Your task to perform on an android device: check google app version Image 0: 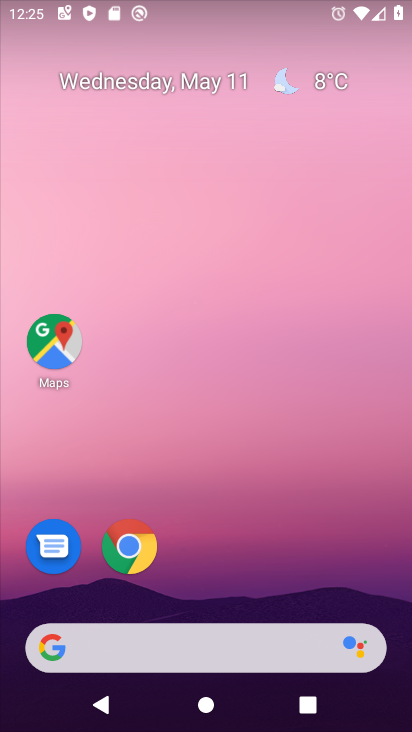
Step 0: drag from (220, 646) to (361, 140)
Your task to perform on an android device: check google app version Image 1: 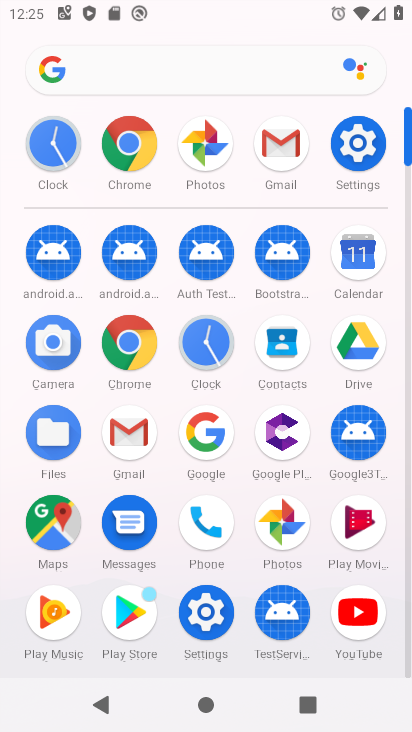
Step 1: click (216, 435)
Your task to perform on an android device: check google app version Image 2: 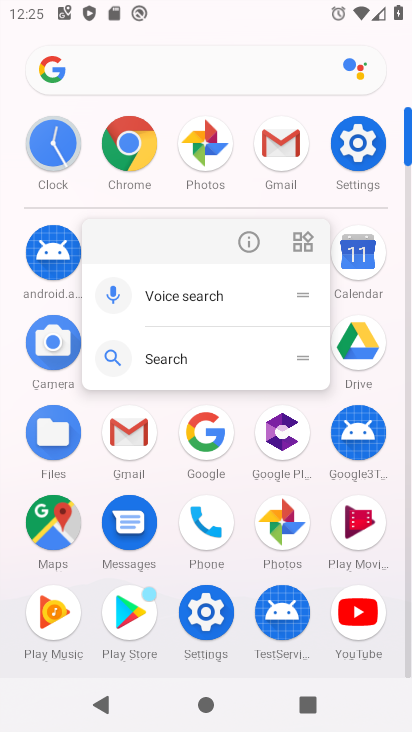
Step 2: click (245, 244)
Your task to perform on an android device: check google app version Image 3: 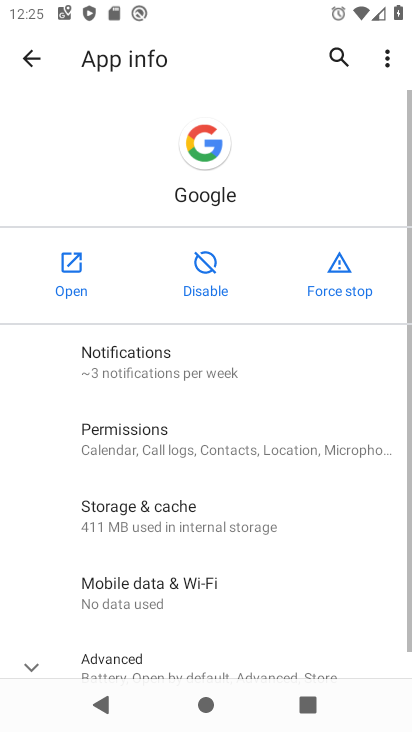
Step 3: drag from (213, 647) to (380, 126)
Your task to perform on an android device: check google app version Image 4: 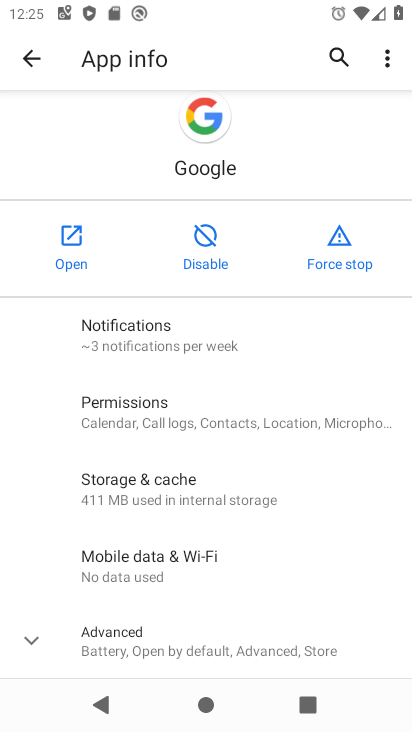
Step 4: drag from (199, 642) to (356, 223)
Your task to perform on an android device: check google app version Image 5: 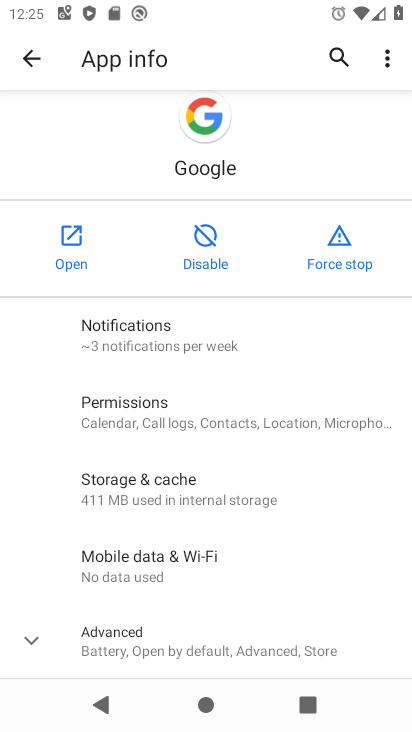
Step 5: click (115, 642)
Your task to perform on an android device: check google app version Image 6: 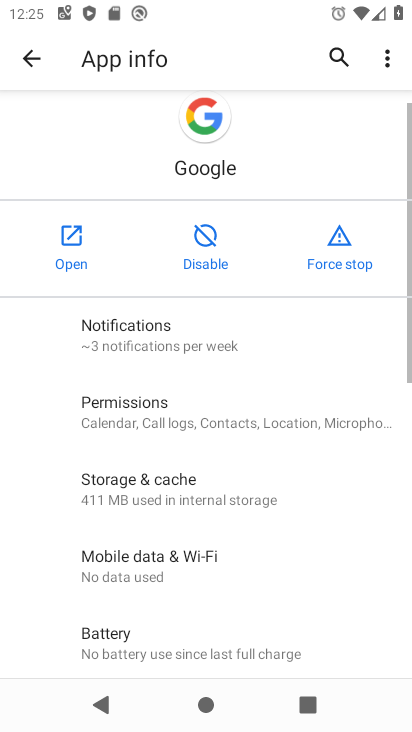
Step 6: task complete